Your task to perform on an android device: Search for Italian restaurants on Maps Image 0: 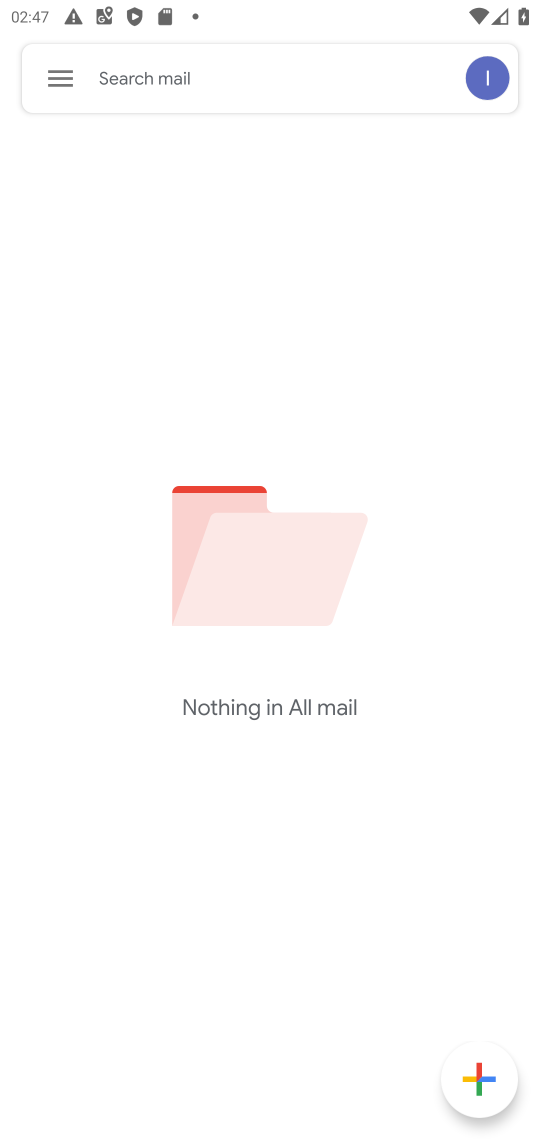
Step 0: press home button
Your task to perform on an android device: Search for Italian restaurants on Maps Image 1: 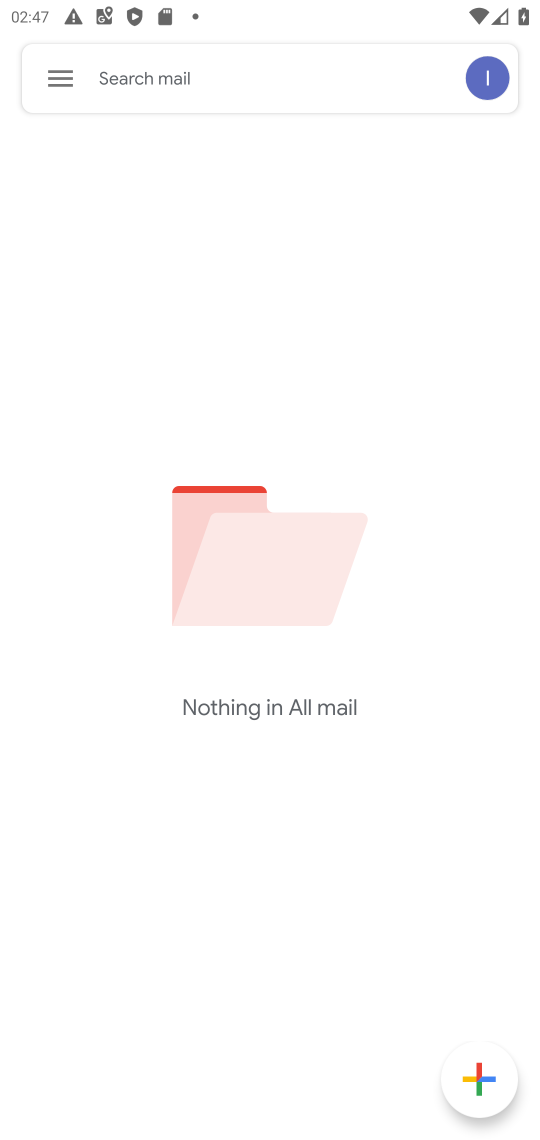
Step 1: press home button
Your task to perform on an android device: Search for Italian restaurants on Maps Image 2: 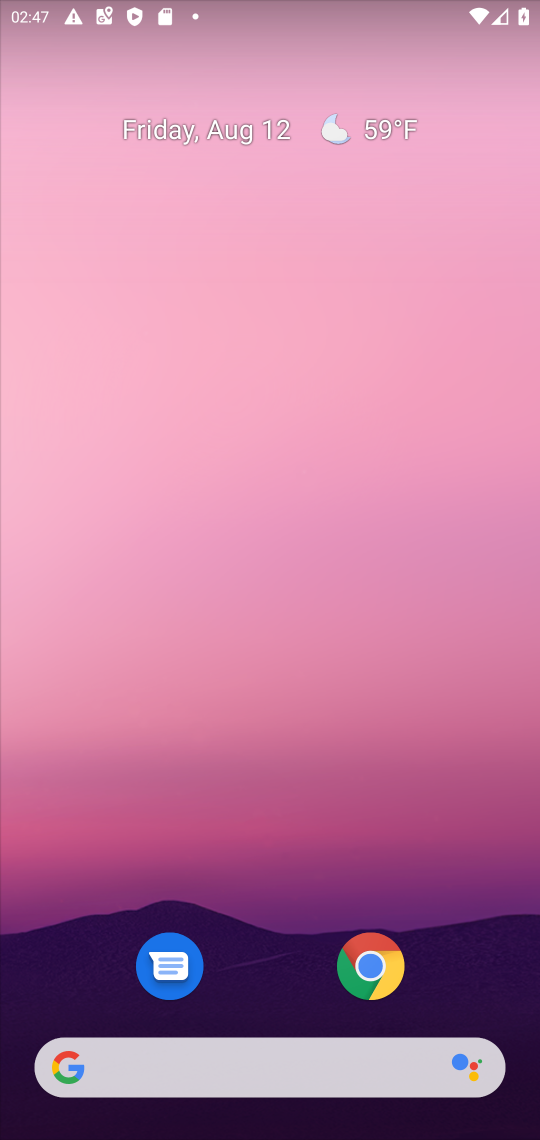
Step 2: drag from (263, 834) to (332, 22)
Your task to perform on an android device: Search for Italian restaurants on Maps Image 3: 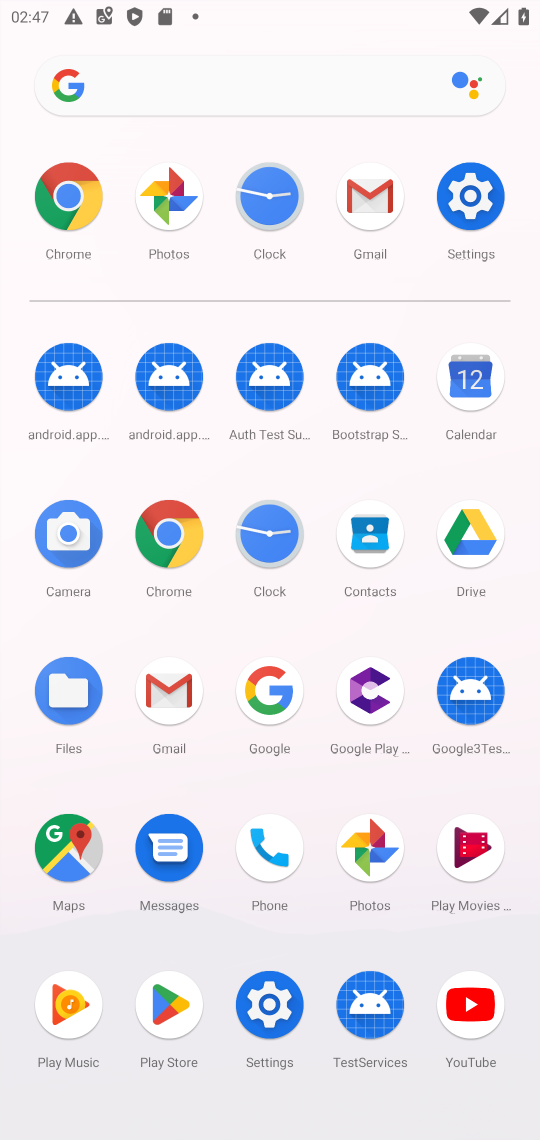
Step 3: click (50, 835)
Your task to perform on an android device: Search for Italian restaurants on Maps Image 4: 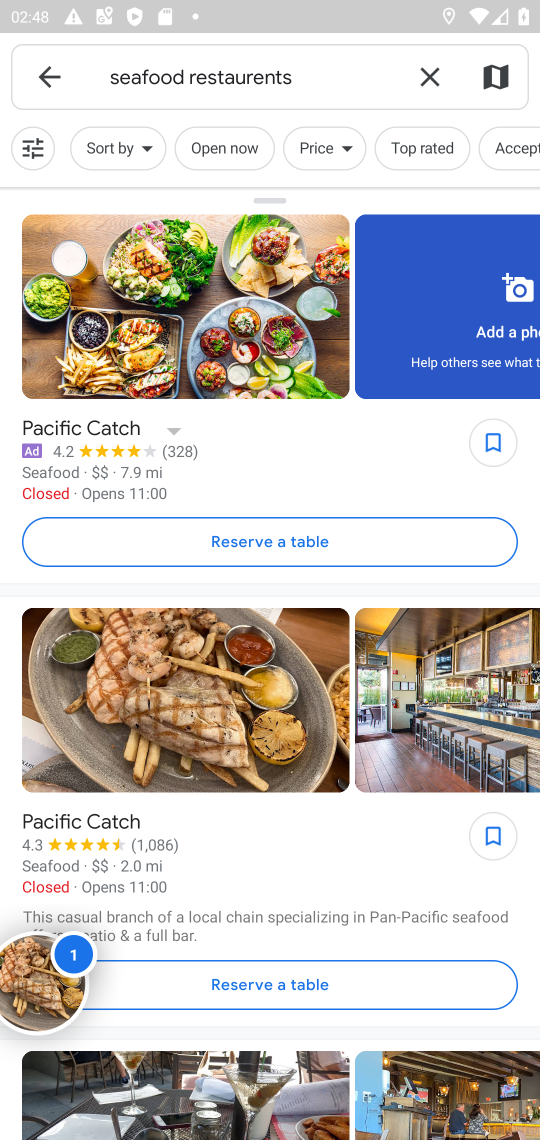
Step 4: click (430, 81)
Your task to perform on an android device: Search for Italian restaurants on Maps Image 5: 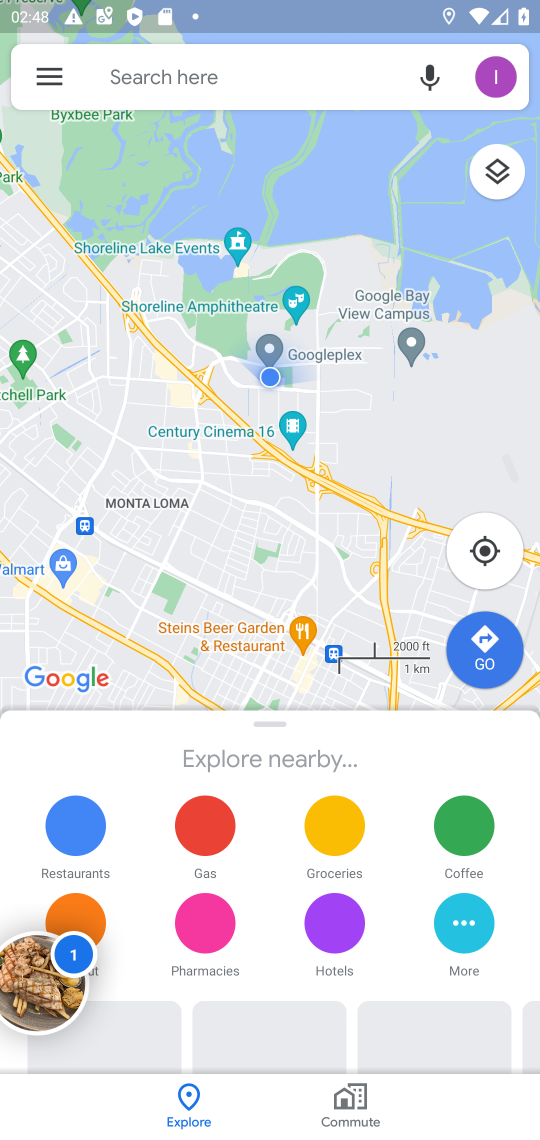
Step 5: click (372, 78)
Your task to perform on an android device: Search for Italian restaurants on Maps Image 6: 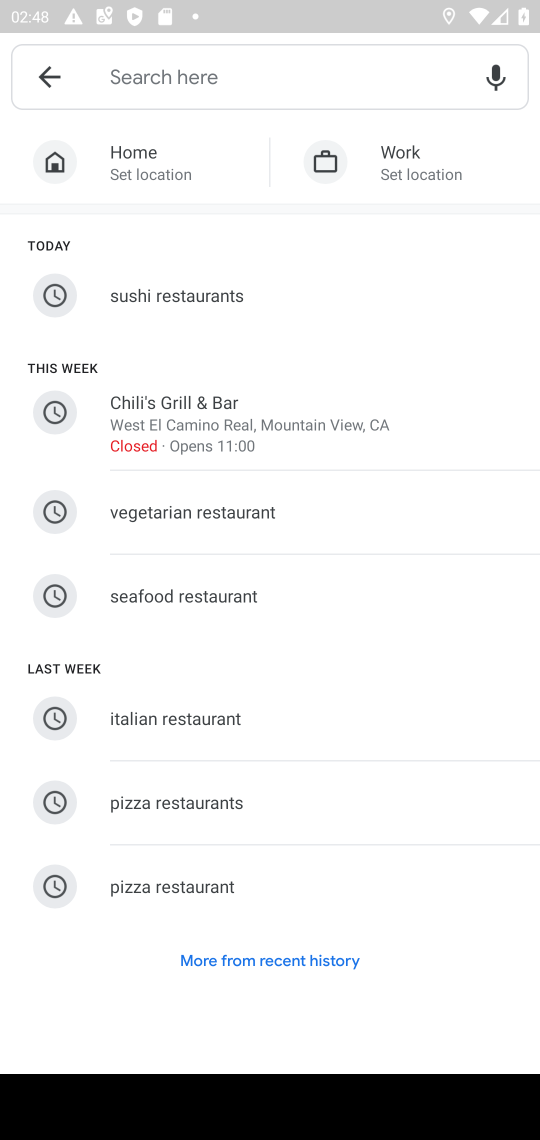
Step 6: type "Italian restaurants"
Your task to perform on an android device: Search for Italian restaurants on Maps Image 7: 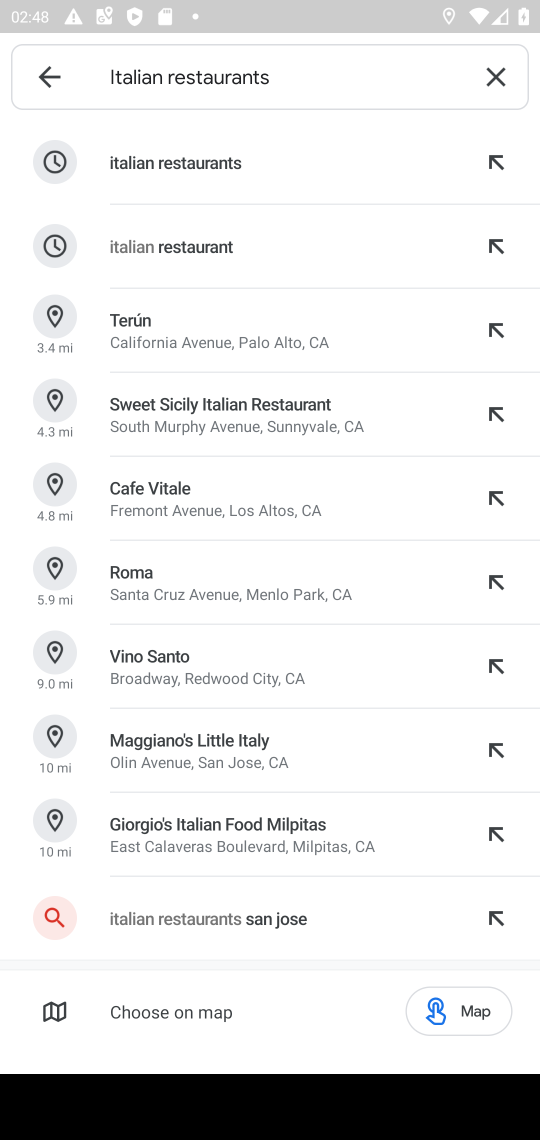
Step 7: click (339, 171)
Your task to perform on an android device: Search for Italian restaurants on Maps Image 8: 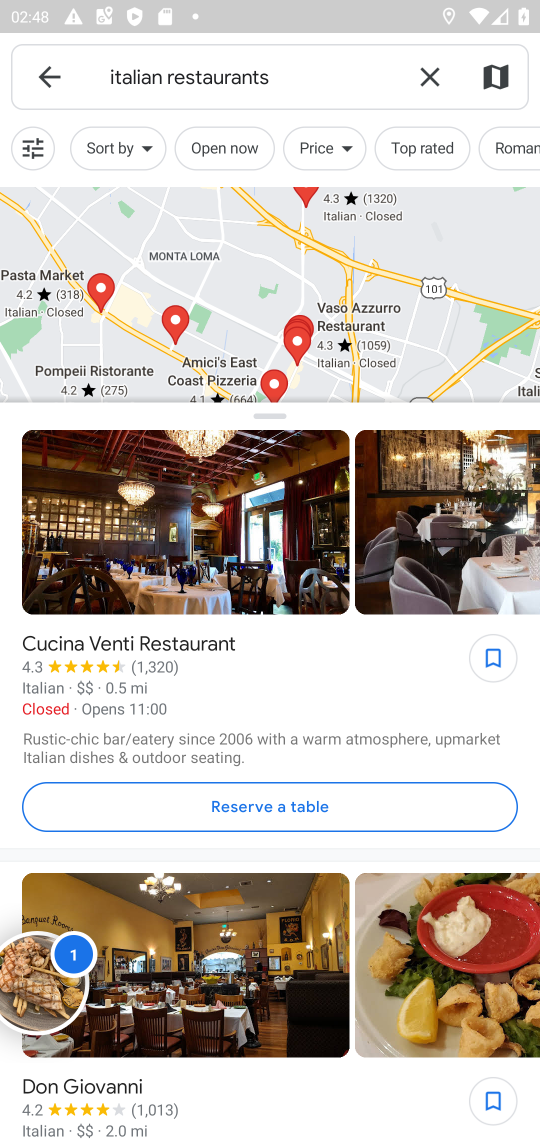
Step 8: task complete